Your task to perform on an android device: Go to internet settings Image 0: 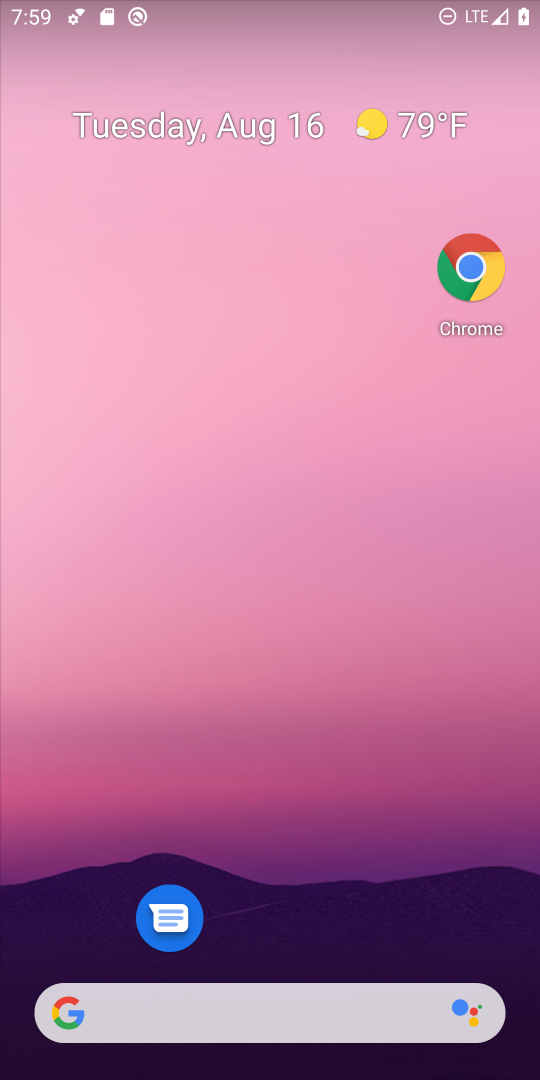
Step 0: drag from (280, 976) to (285, 32)
Your task to perform on an android device: Go to internet settings Image 1: 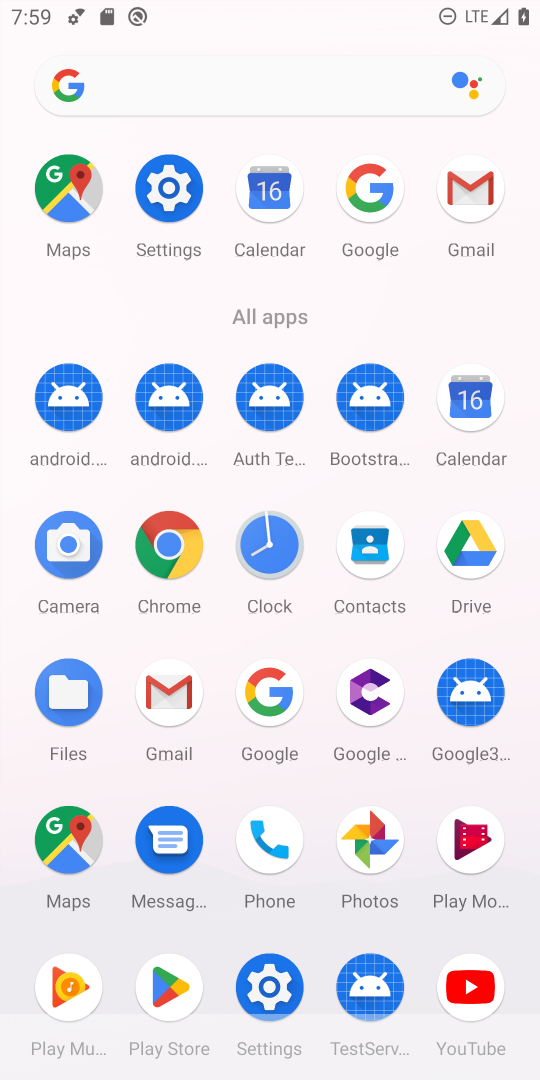
Step 1: click (179, 222)
Your task to perform on an android device: Go to internet settings Image 2: 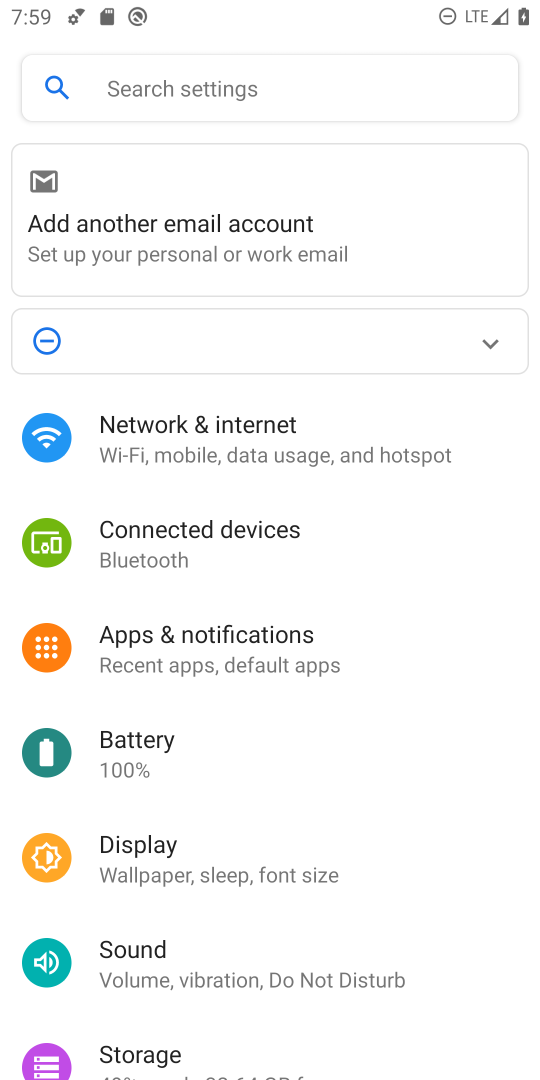
Step 2: click (251, 424)
Your task to perform on an android device: Go to internet settings Image 3: 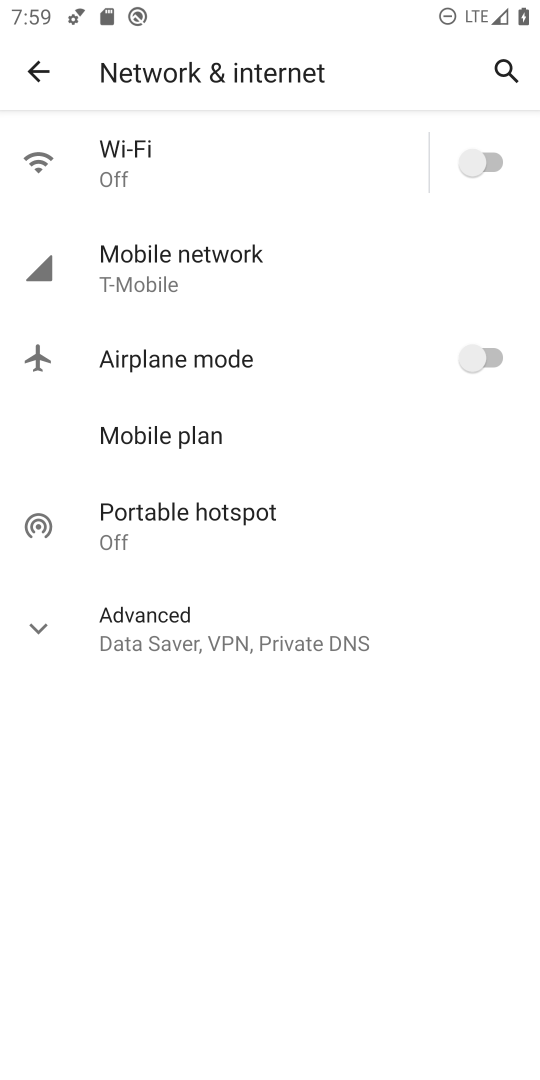
Step 3: click (229, 275)
Your task to perform on an android device: Go to internet settings Image 4: 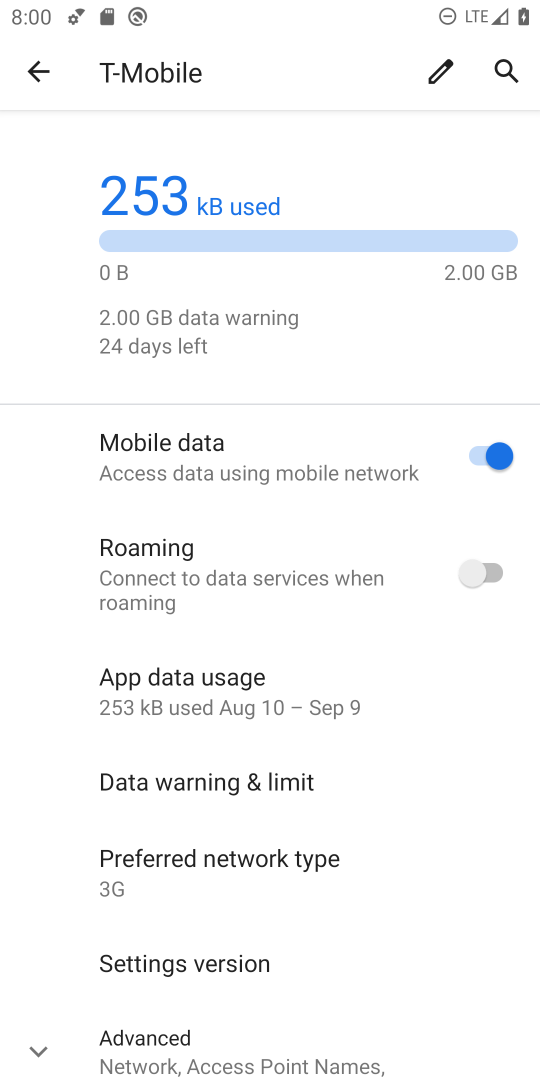
Step 4: task complete